Your task to perform on an android device: add a label to a message in the gmail app Image 0: 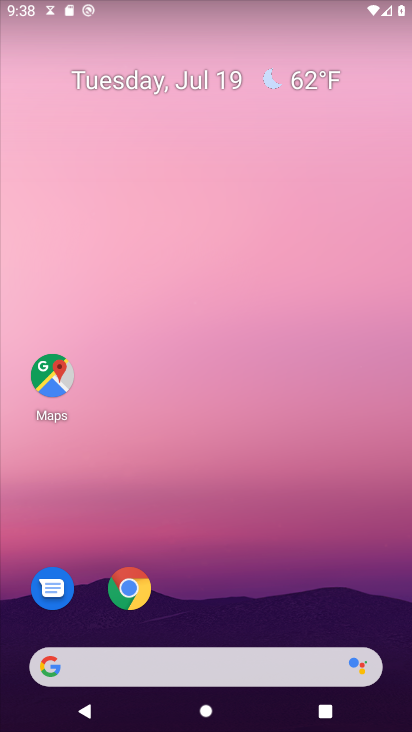
Step 0: click (47, 669)
Your task to perform on an android device: add a label to a message in the gmail app Image 1: 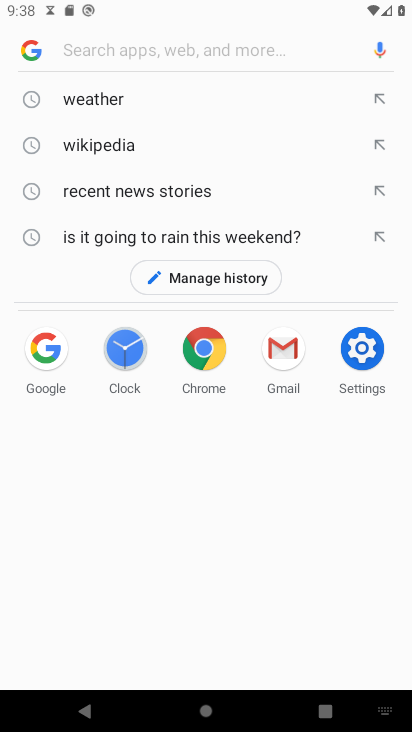
Step 1: click (24, 44)
Your task to perform on an android device: add a label to a message in the gmail app Image 2: 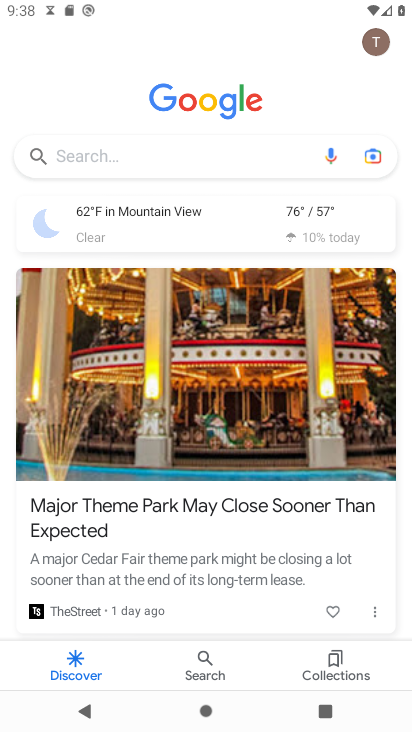
Step 2: click (386, 38)
Your task to perform on an android device: add a label to a message in the gmail app Image 3: 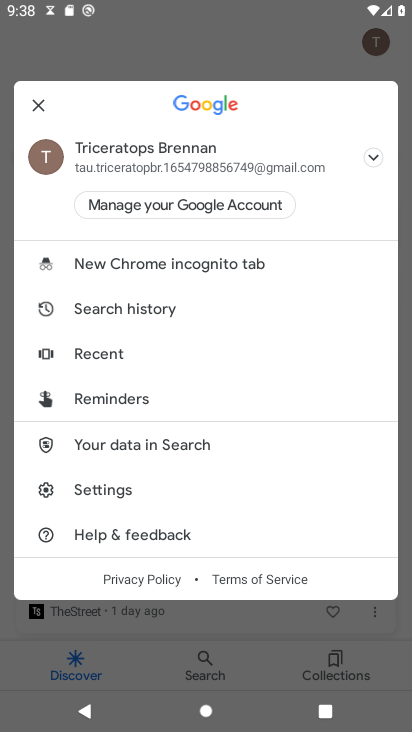
Step 3: click (71, 489)
Your task to perform on an android device: add a label to a message in the gmail app Image 4: 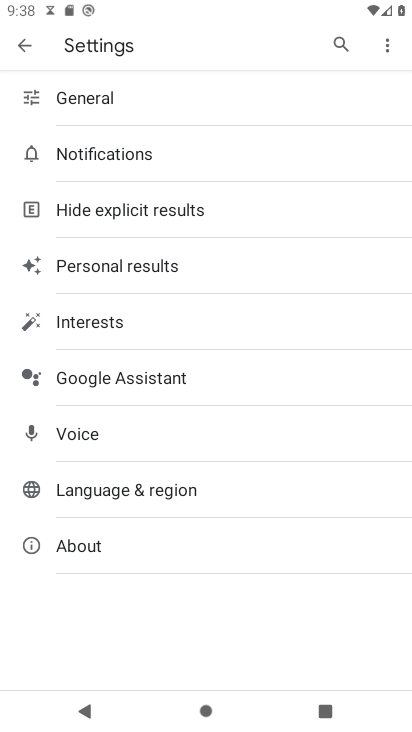
Step 4: click (69, 548)
Your task to perform on an android device: add a label to a message in the gmail app Image 5: 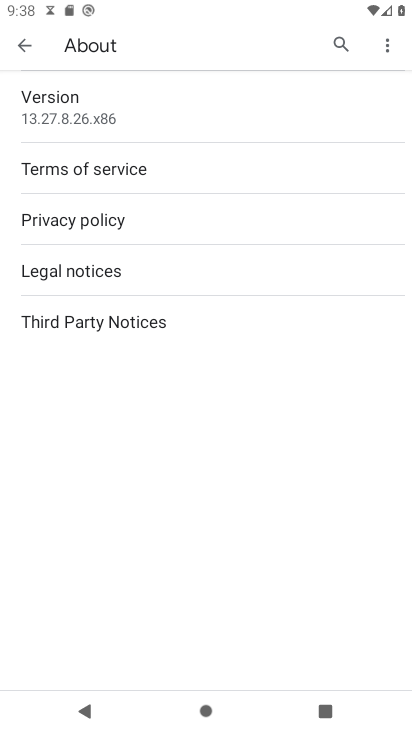
Step 5: task complete